Your task to perform on an android device: open chrome privacy settings Image 0: 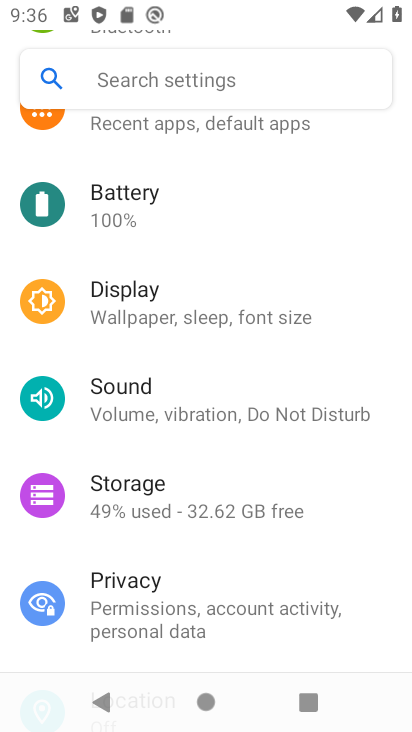
Step 0: press home button
Your task to perform on an android device: open chrome privacy settings Image 1: 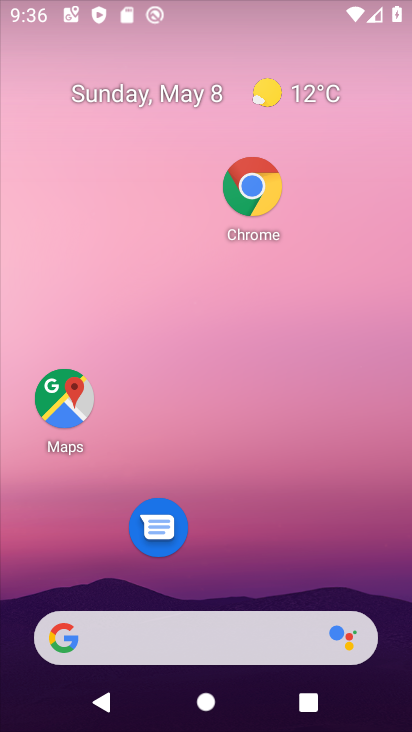
Step 1: drag from (276, 528) to (323, 270)
Your task to perform on an android device: open chrome privacy settings Image 2: 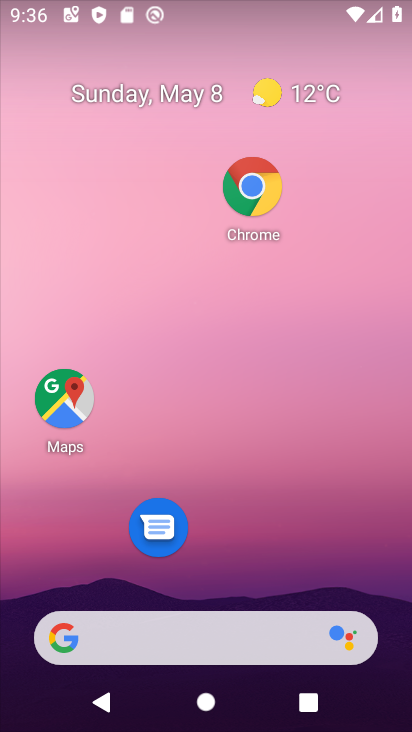
Step 2: drag from (312, 534) to (393, 200)
Your task to perform on an android device: open chrome privacy settings Image 3: 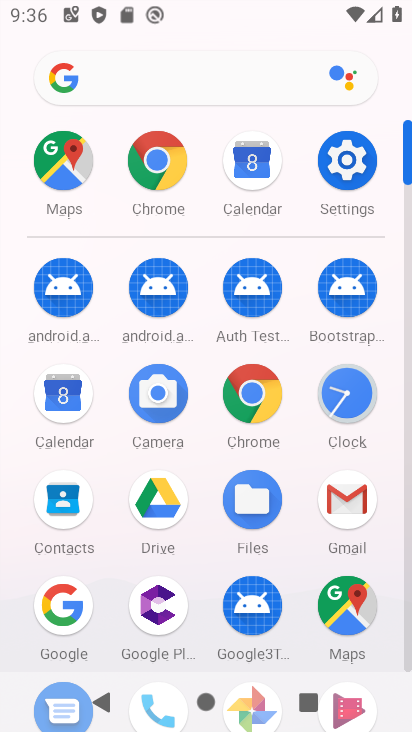
Step 3: click (245, 393)
Your task to perform on an android device: open chrome privacy settings Image 4: 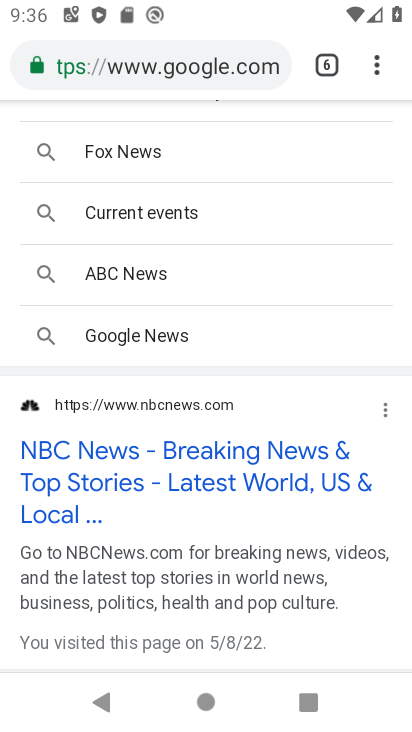
Step 4: click (363, 56)
Your task to perform on an android device: open chrome privacy settings Image 5: 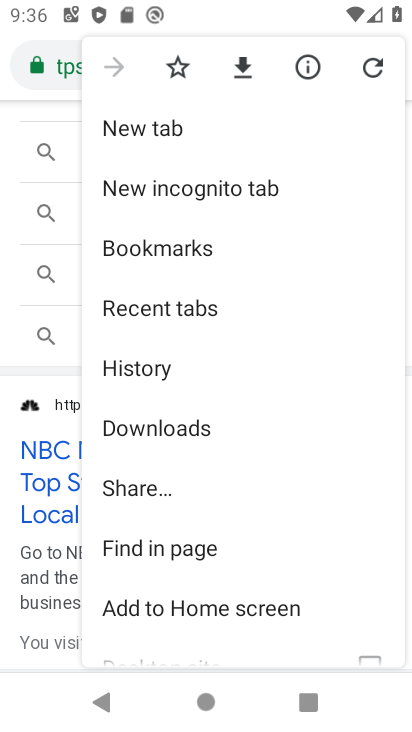
Step 5: drag from (258, 562) to (335, 212)
Your task to perform on an android device: open chrome privacy settings Image 6: 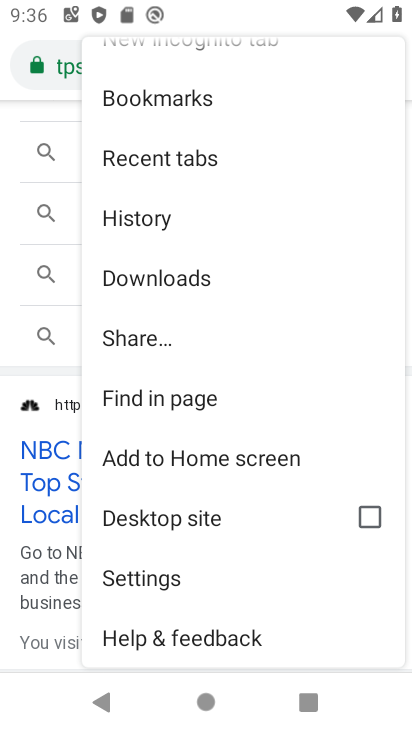
Step 6: click (167, 578)
Your task to perform on an android device: open chrome privacy settings Image 7: 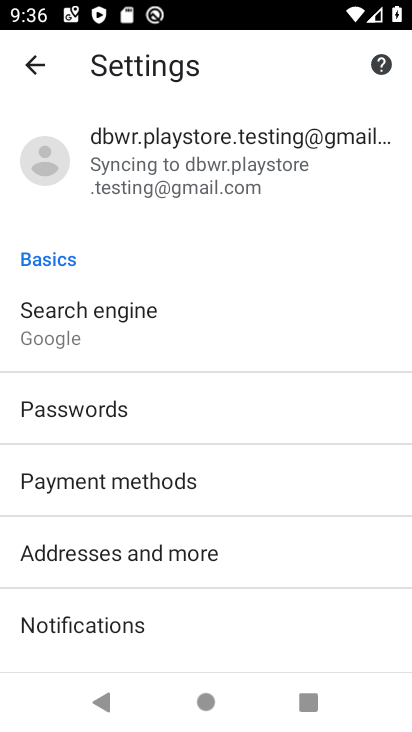
Step 7: drag from (119, 558) to (208, 291)
Your task to perform on an android device: open chrome privacy settings Image 8: 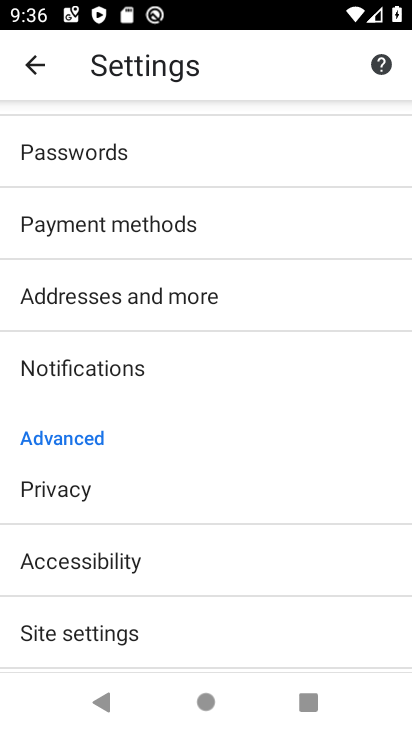
Step 8: click (79, 496)
Your task to perform on an android device: open chrome privacy settings Image 9: 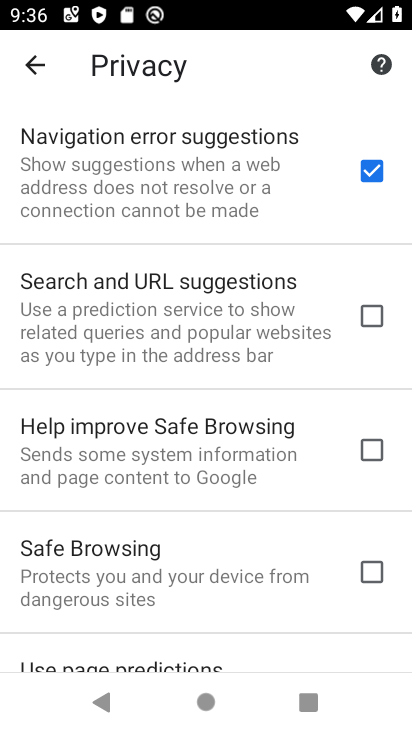
Step 9: task complete